Your task to perform on an android device: toggle airplane mode Image 0: 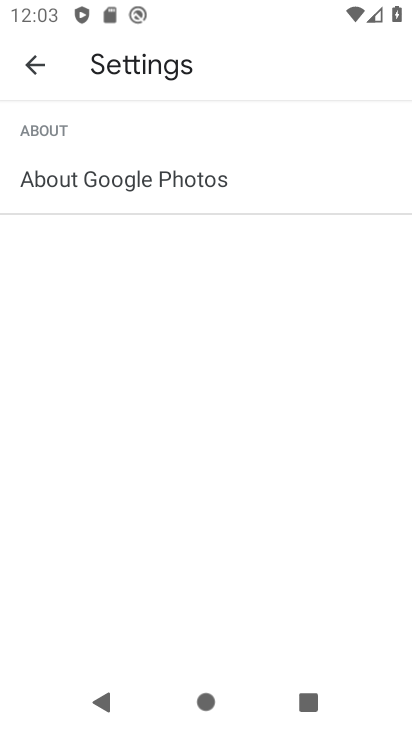
Step 0: press home button
Your task to perform on an android device: toggle airplane mode Image 1: 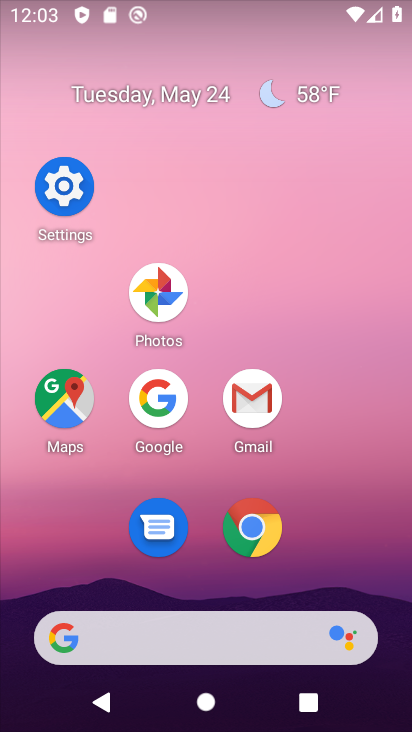
Step 1: click (70, 184)
Your task to perform on an android device: toggle airplane mode Image 2: 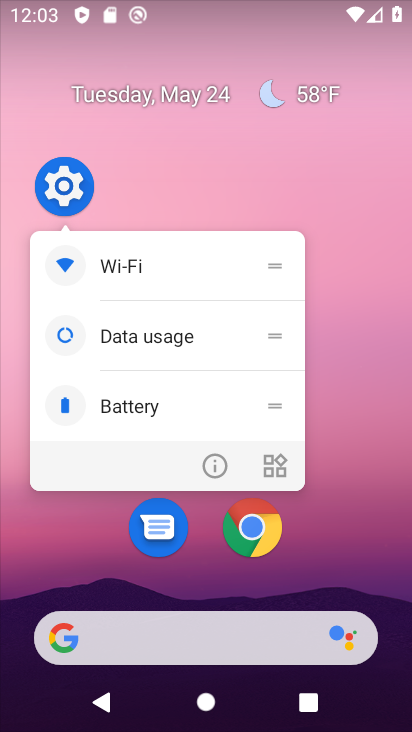
Step 2: click (58, 181)
Your task to perform on an android device: toggle airplane mode Image 3: 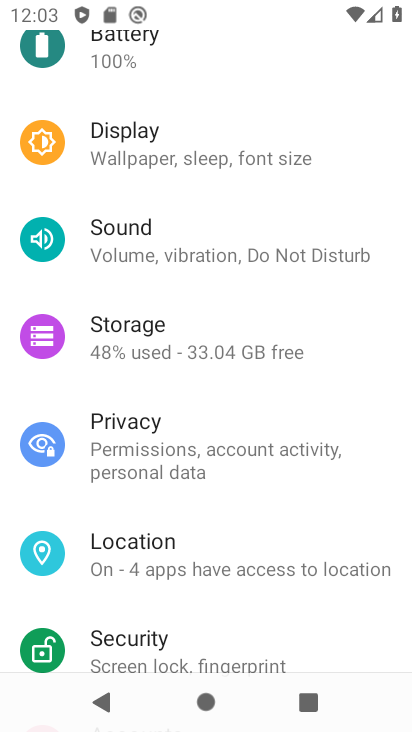
Step 3: drag from (340, 228) to (314, 651)
Your task to perform on an android device: toggle airplane mode Image 4: 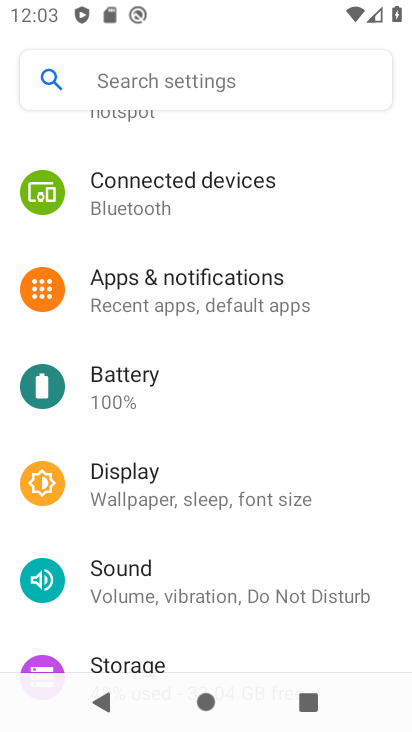
Step 4: drag from (327, 337) to (321, 625)
Your task to perform on an android device: toggle airplane mode Image 5: 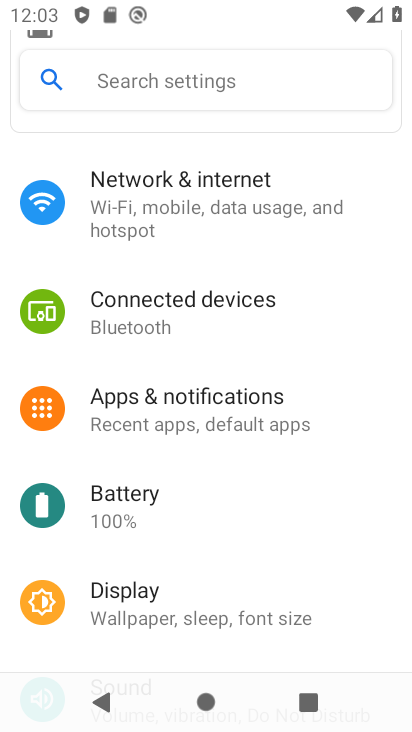
Step 5: click (247, 206)
Your task to perform on an android device: toggle airplane mode Image 6: 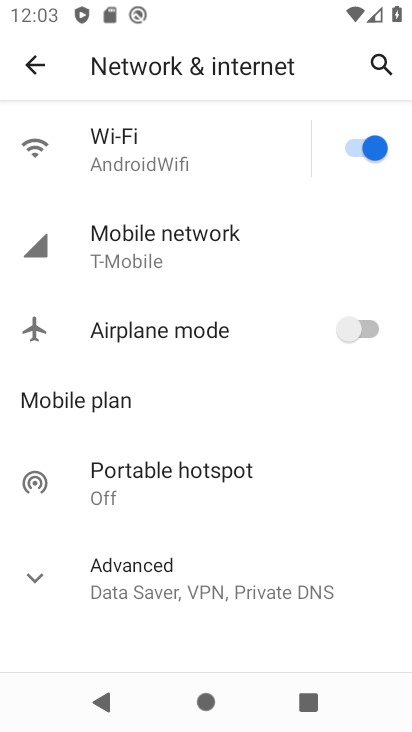
Step 6: click (360, 320)
Your task to perform on an android device: toggle airplane mode Image 7: 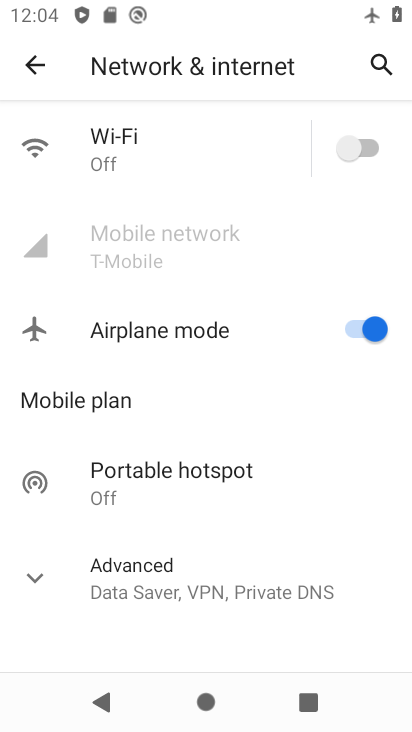
Step 7: task complete